Your task to perform on an android device: Open ESPN.com Image 0: 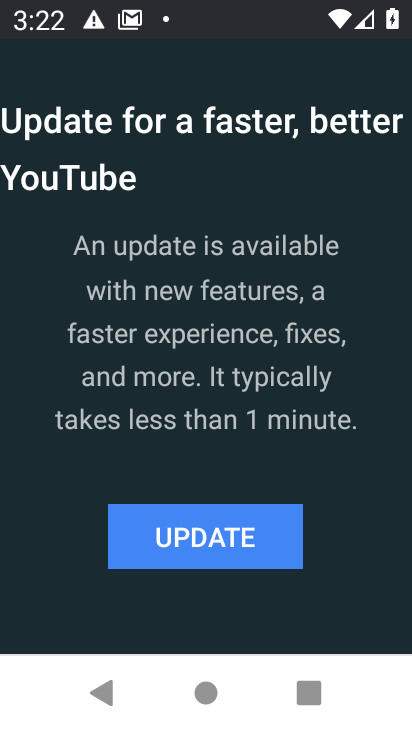
Step 0: press home button
Your task to perform on an android device: Open ESPN.com Image 1: 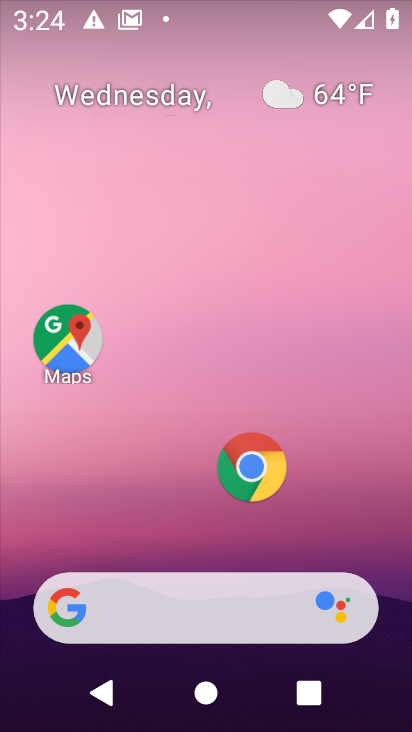
Step 1: click (220, 603)
Your task to perform on an android device: Open ESPN.com Image 2: 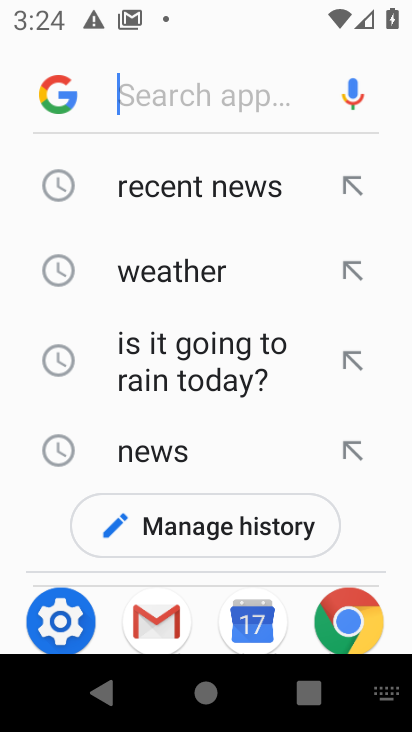
Step 2: type " ESPN.com"
Your task to perform on an android device: Open ESPN.com Image 3: 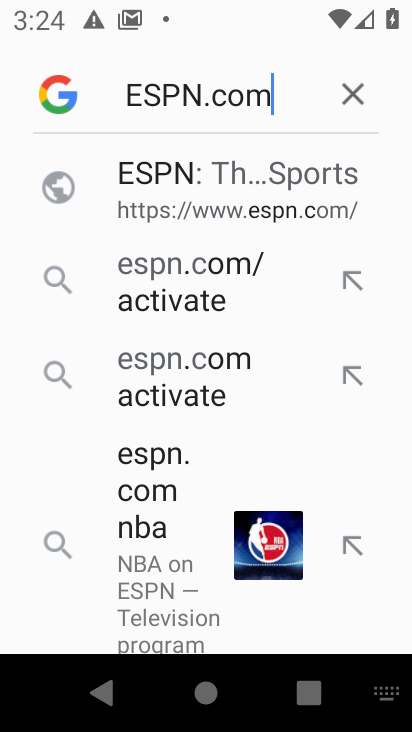
Step 3: type ""
Your task to perform on an android device: Open ESPN.com Image 4: 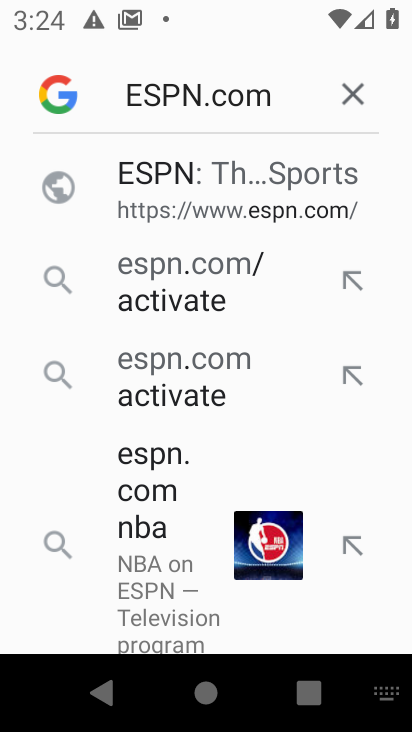
Step 4: press enter
Your task to perform on an android device: Open ESPN.com Image 5: 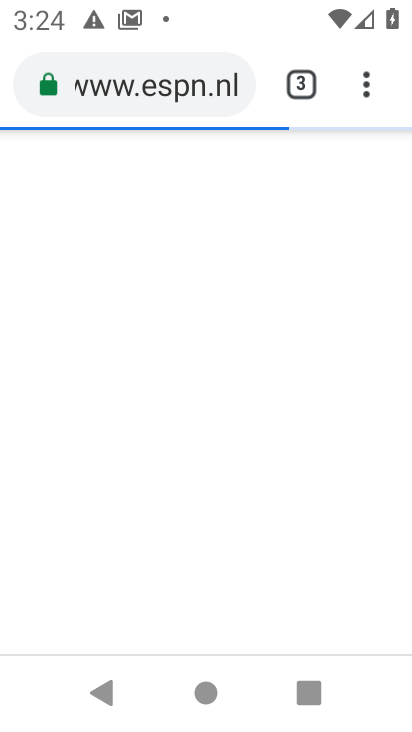
Step 5: task complete